Your task to perform on an android device: Go to accessibility settings Image 0: 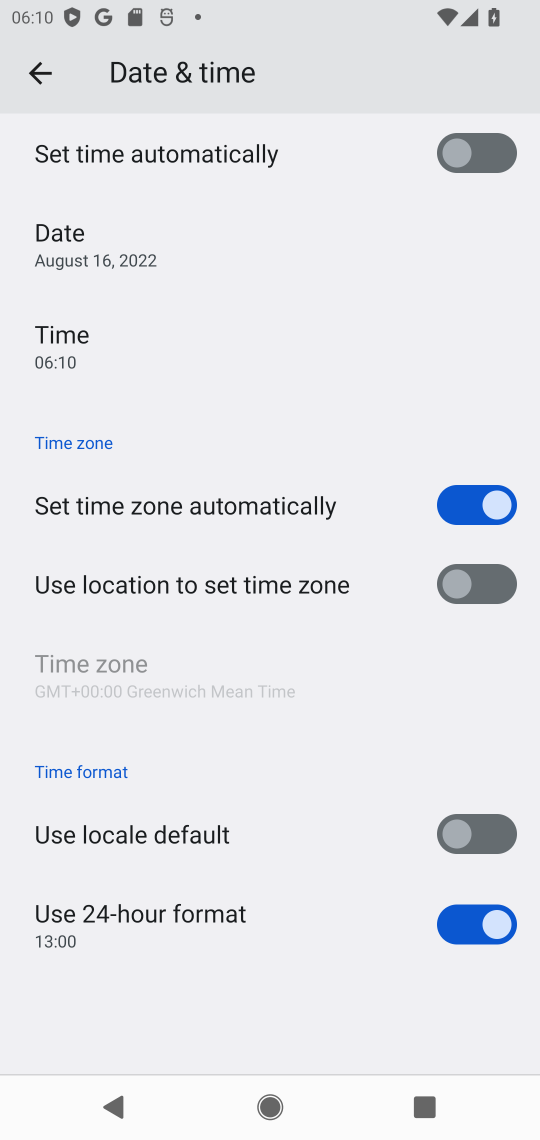
Step 0: press home button
Your task to perform on an android device: Go to accessibility settings Image 1: 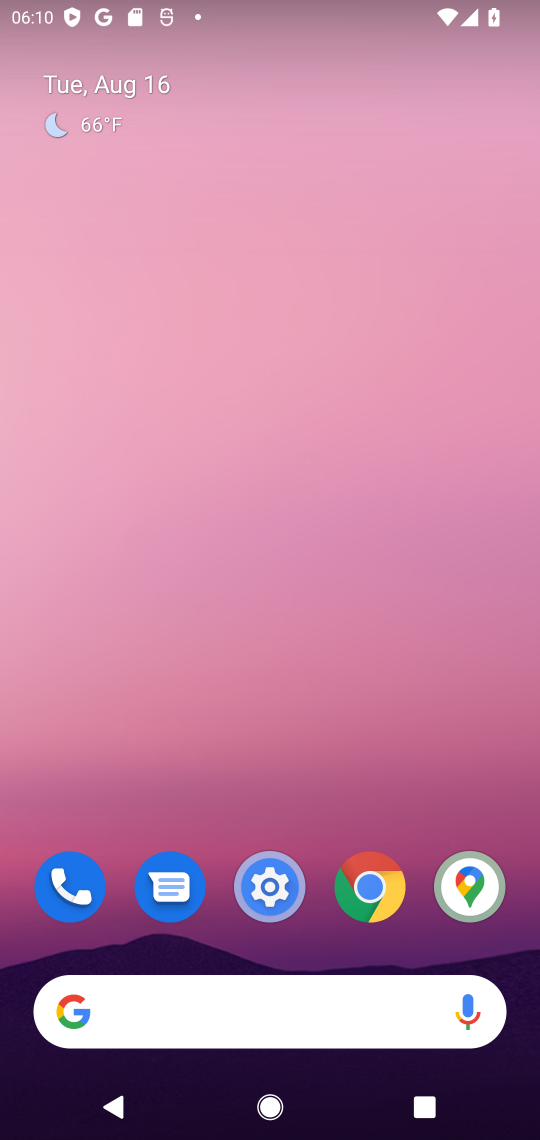
Step 1: drag from (260, 735) to (275, 43)
Your task to perform on an android device: Go to accessibility settings Image 2: 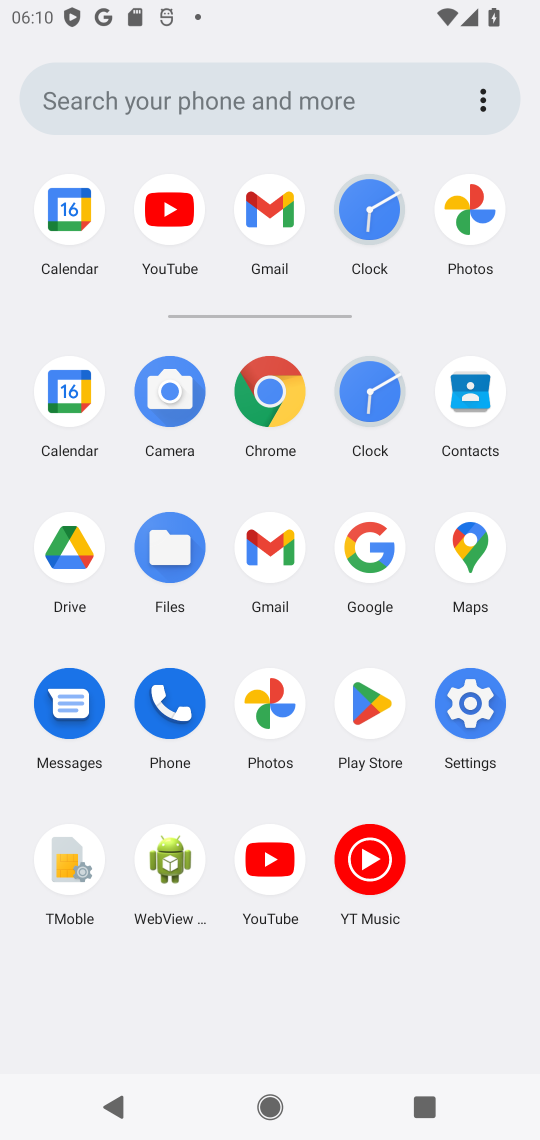
Step 2: click (460, 698)
Your task to perform on an android device: Go to accessibility settings Image 3: 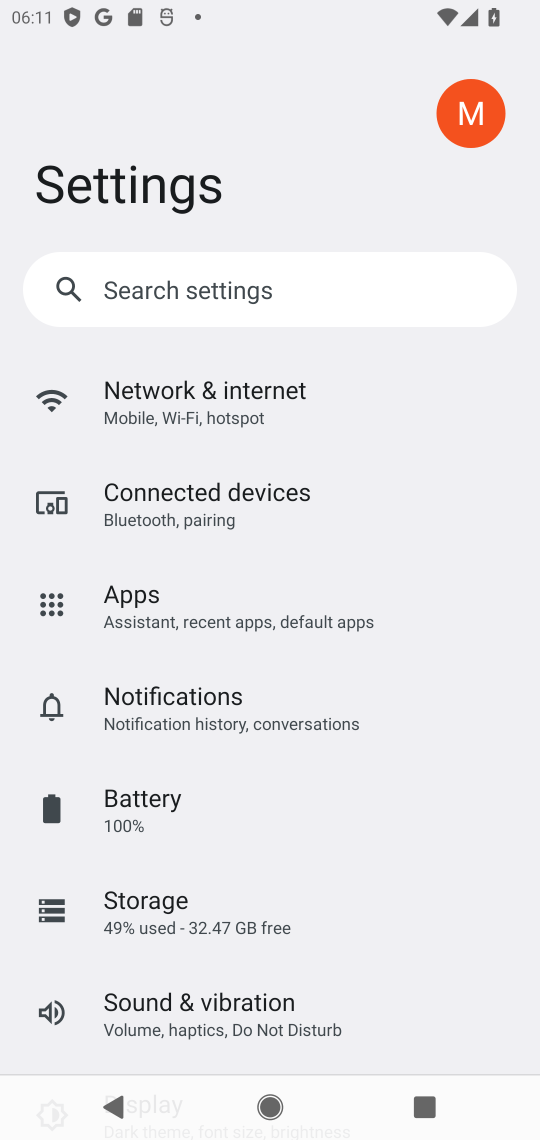
Step 3: drag from (342, 856) to (348, 211)
Your task to perform on an android device: Go to accessibility settings Image 4: 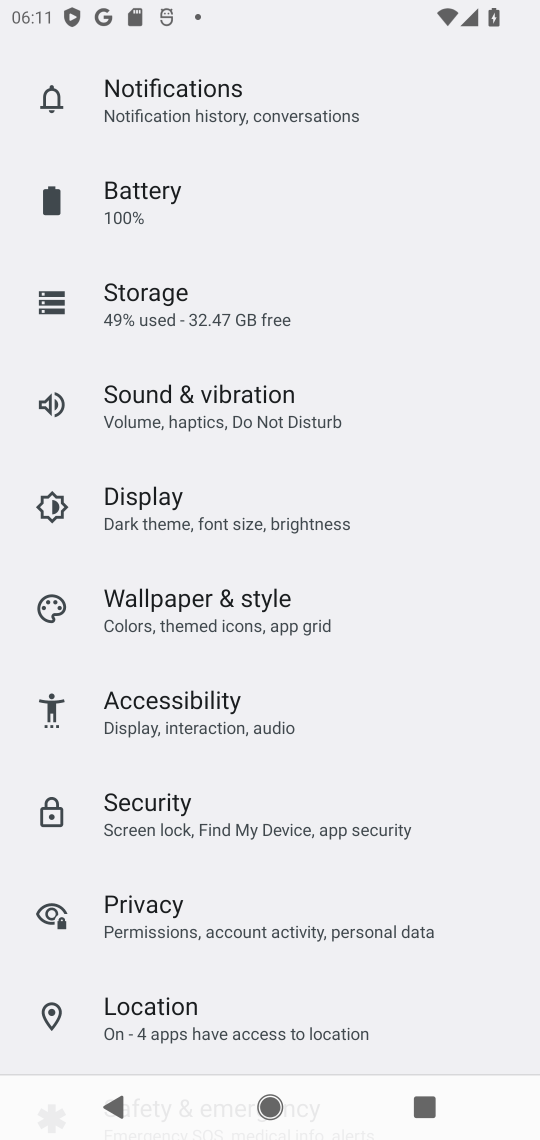
Step 4: click (112, 732)
Your task to perform on an android device: Go to accessibility settings Image 5: 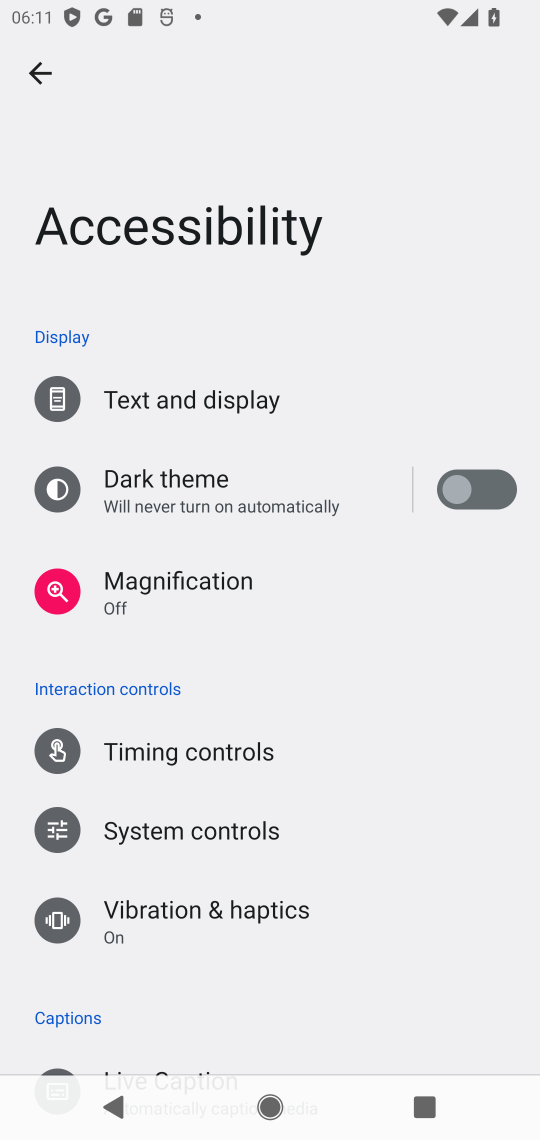
Step 5: task complete